Your task to perform on an android device: Open location settings Image 0: 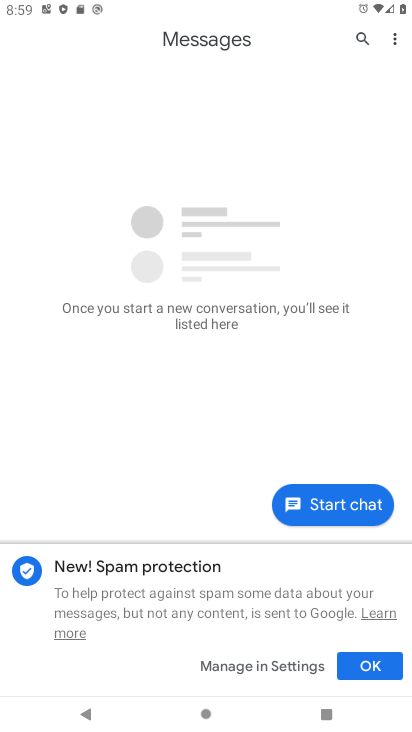
Step 0: drag from (249, 725) to (263, 304)
Your task to perform on an android device: Open location settings Image 1: 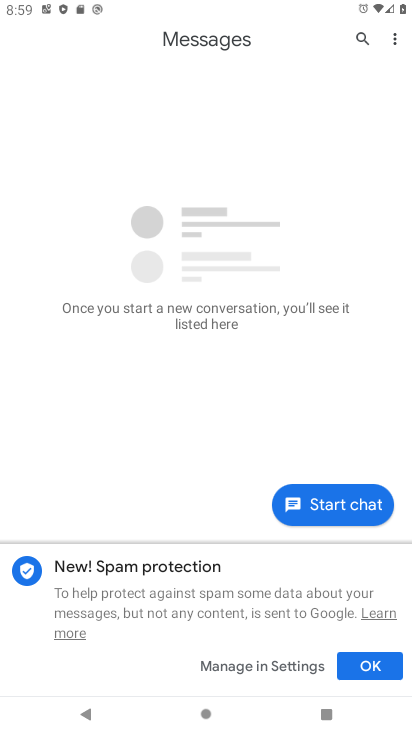
Step 1: press home button
Your task to perform on an android device: Open location settings Image 2: 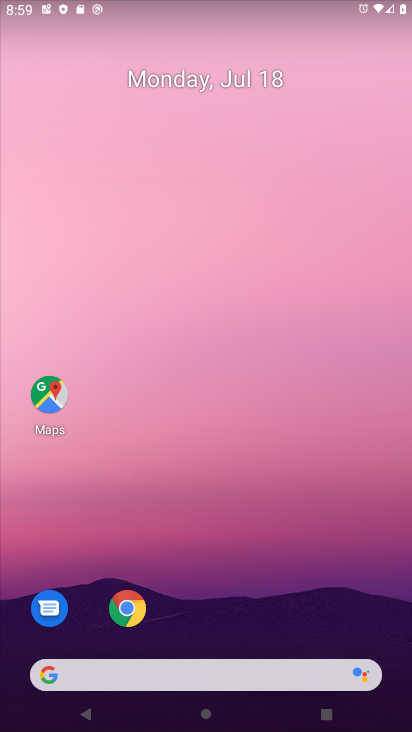
Step 2: drag from (244, 722) to (268, 245)
Your task to perform on an android device: Open location settings Image 3: 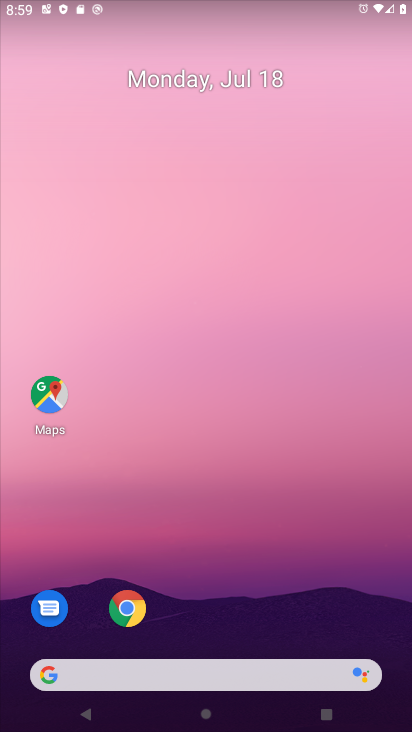
Step 3: drag from (235, 707) to (240, 113)
Your task to perform on an android device: Open location settings Image 4: 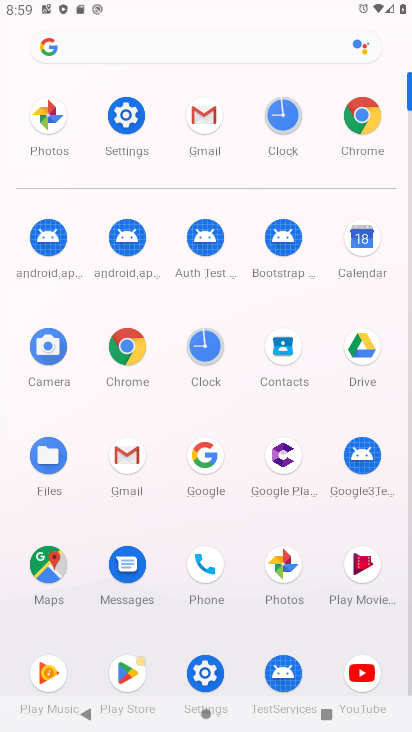
Step 4: click (125, 112)
Your task to perform on an android device: Open location settings Image 5: 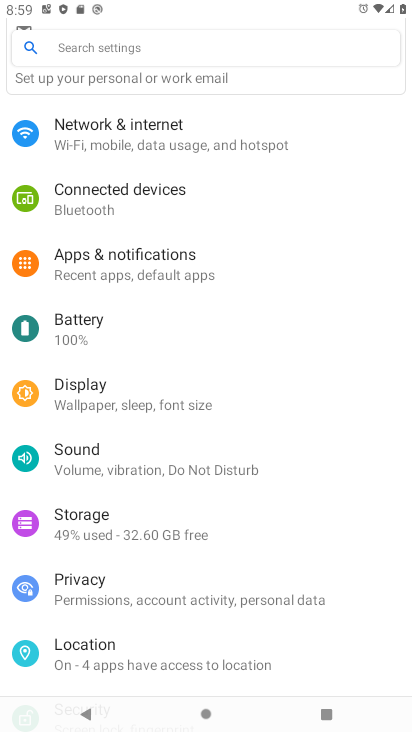
Step 5: click (108, 649)
Your task to perform on an android device: Open location settings Image 6: 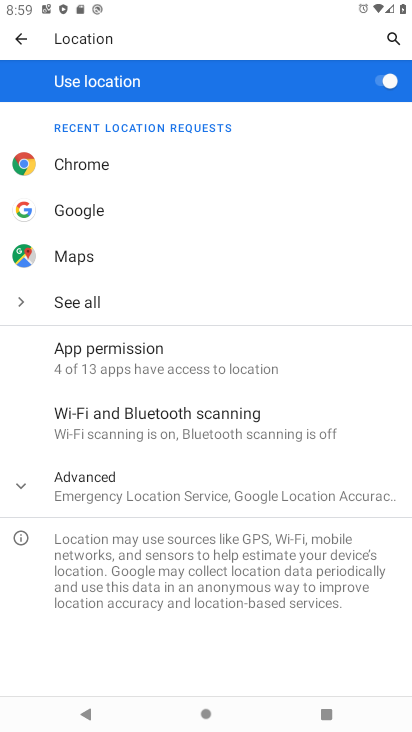
Step 6: task complete